Your task to perform on an android device: set default search engine in the chrome app Image 0: 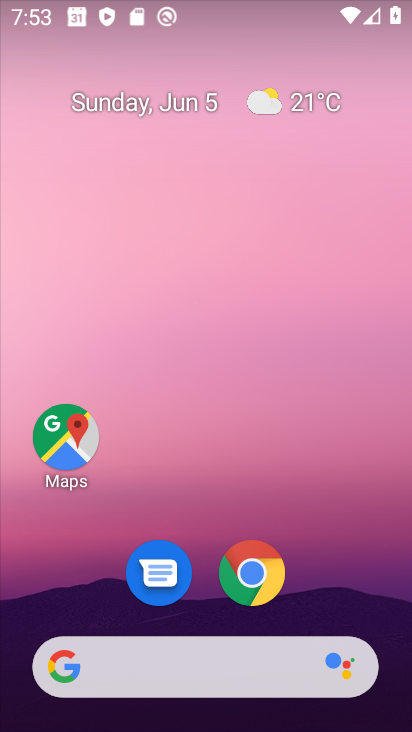
Step 0: drag from (264, 600) to (277, 238)
Your task to perform on an android device: set default search engine in the chrome app Image 1: 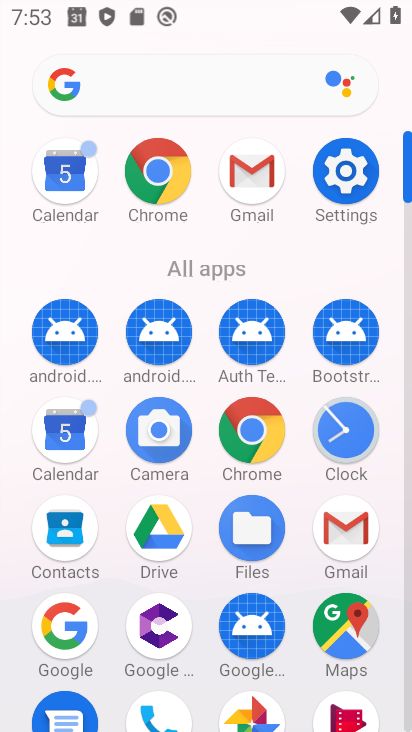
Step 1: click (257, 420)
Your task to perform on an android device: set default search engine in the chrome app Image 2: 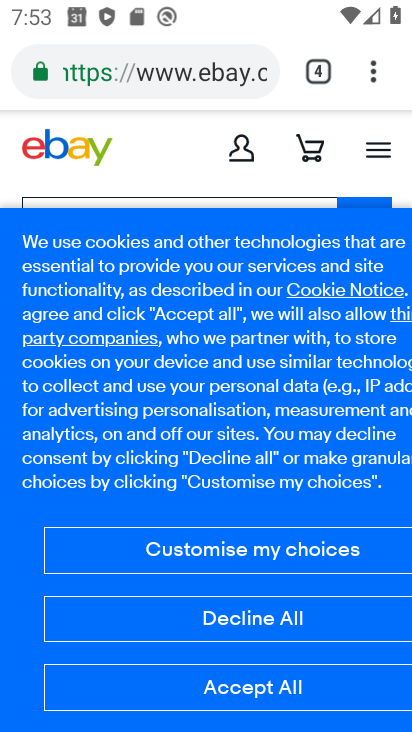
Step 2: click (364, 69)
Your task to perform on an android device: set default search engine in the chrome app Image 3: 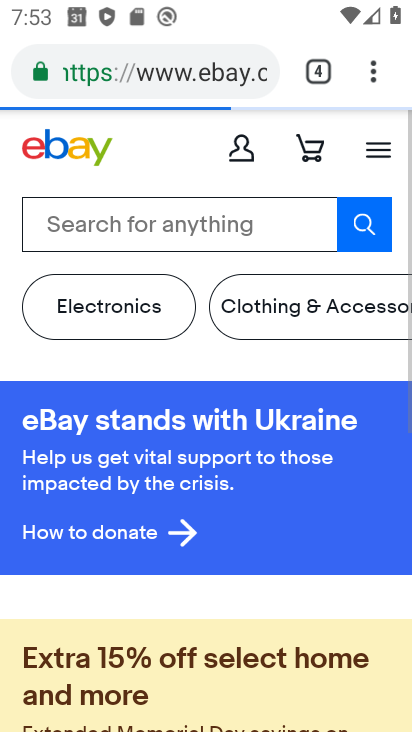
Step 3: click (369, 72)
Your task to perform on an android device: set default search engine in the chrome app Image 4: 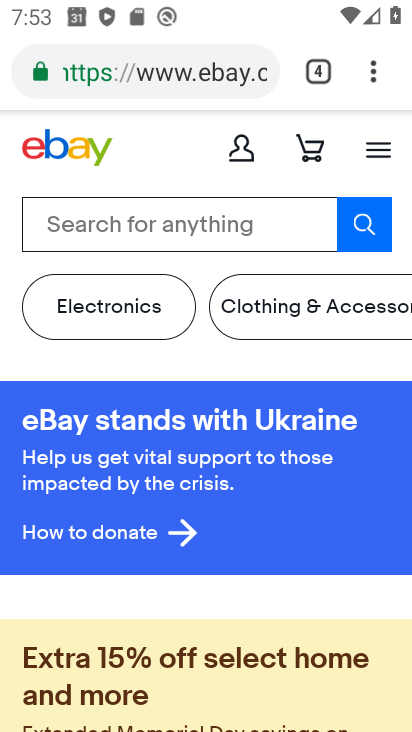
Step 4: click (380, 69)
Your task to perform on an android device: set default search engine in the chrome app Image 5: 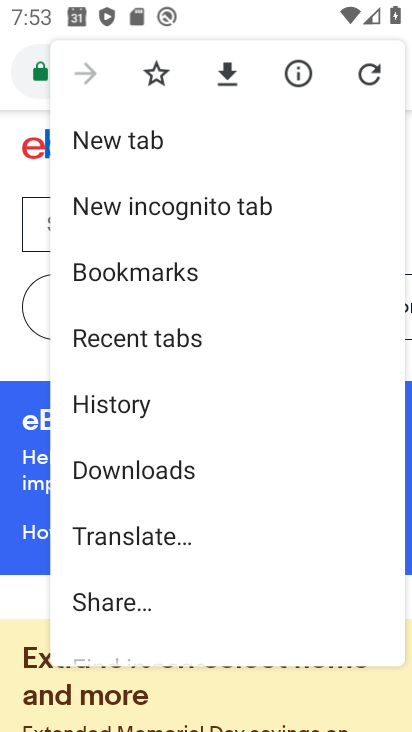
Step 5: drag from (187, 583) to (244, 237)
Your task to perform on an android device: set default search engine in the chrome app Image 6: 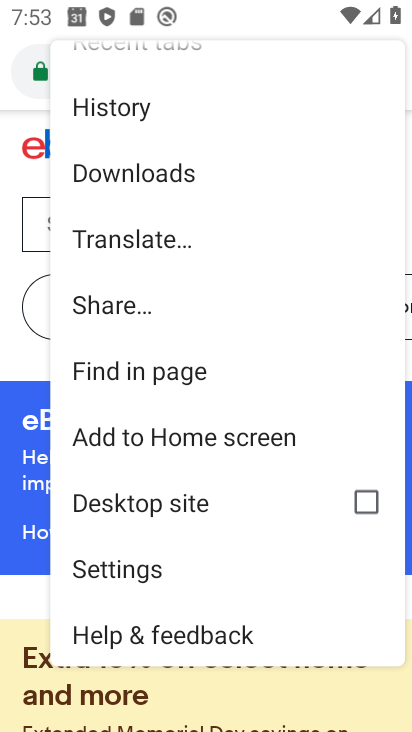
Step 6: click (130, 571)
Your task to perform on an android device: set default search engine in the chrome app Image 7: 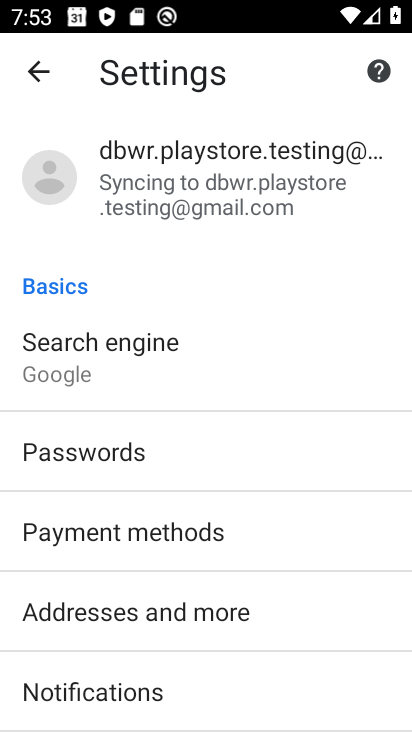
Step 7: click (136, 348)
Your task to perform on an android device: set default search engine in the chrome app Image 8: 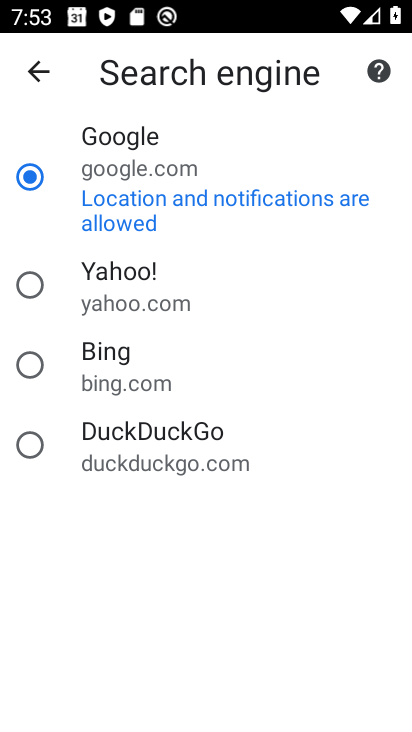
Step 8: click (86, 356)
Your task to perform on an android device: set default search engine in the chrome app Image 9: 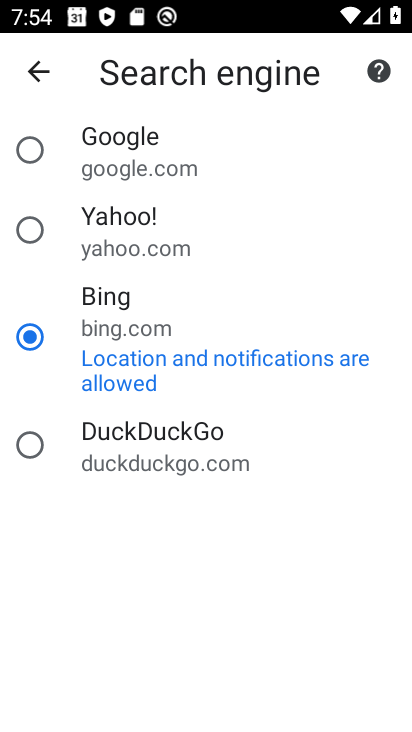
Step 9: task complete